Your task to perform on an android device: Add "dell xps" to the cart on costco.com, then select checkout. Image 0: 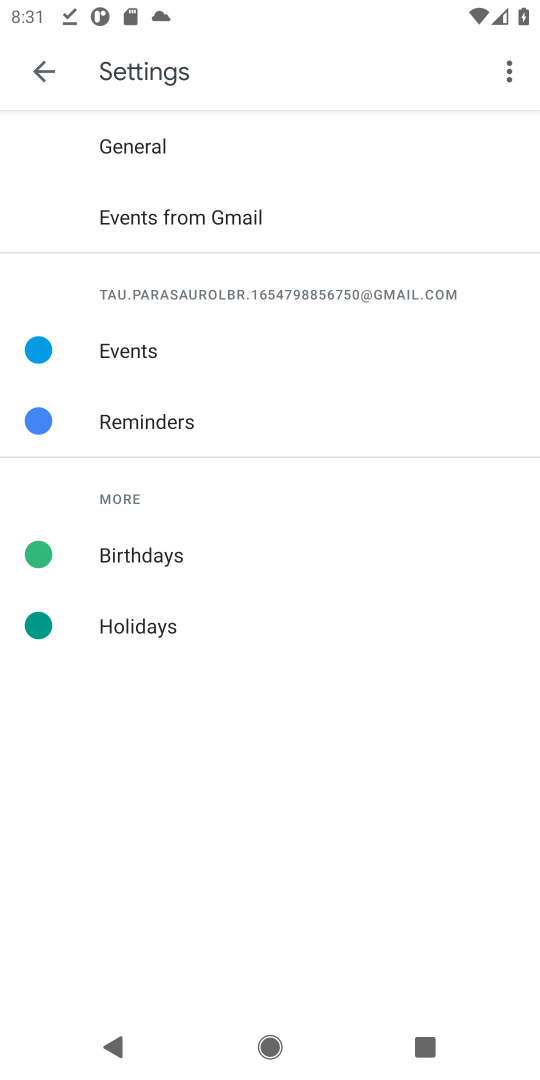
Step 0: press home button
Your task to perform on an android device: Add "dell xps" to the cart on costco.com, then select checkout. Image 1: 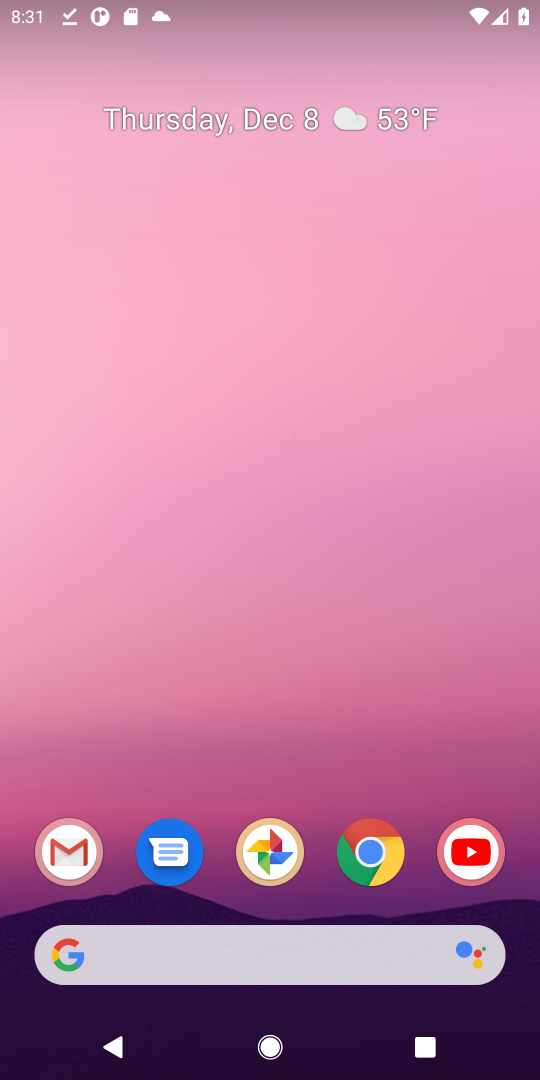
Step 1: click (231, 979)
Your task to perform on an android device: Add "dell xps" to the cart on costco.com, then select checkout. Image 2: 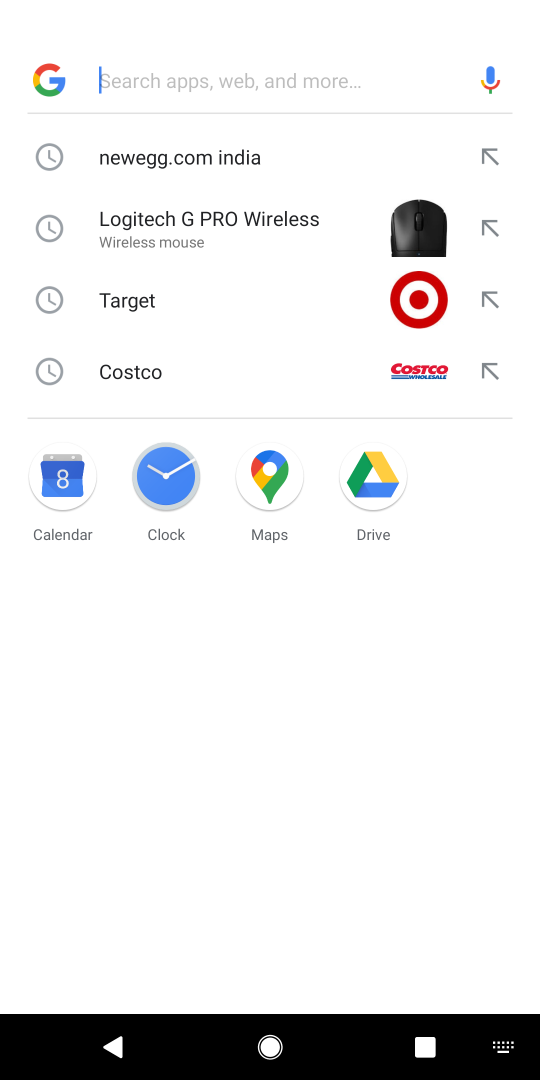
Step 2: type "costco.com"
Your task to perform on an android device: Add "dell xps" to the cart on costco.com, then select checkout. Image 3: 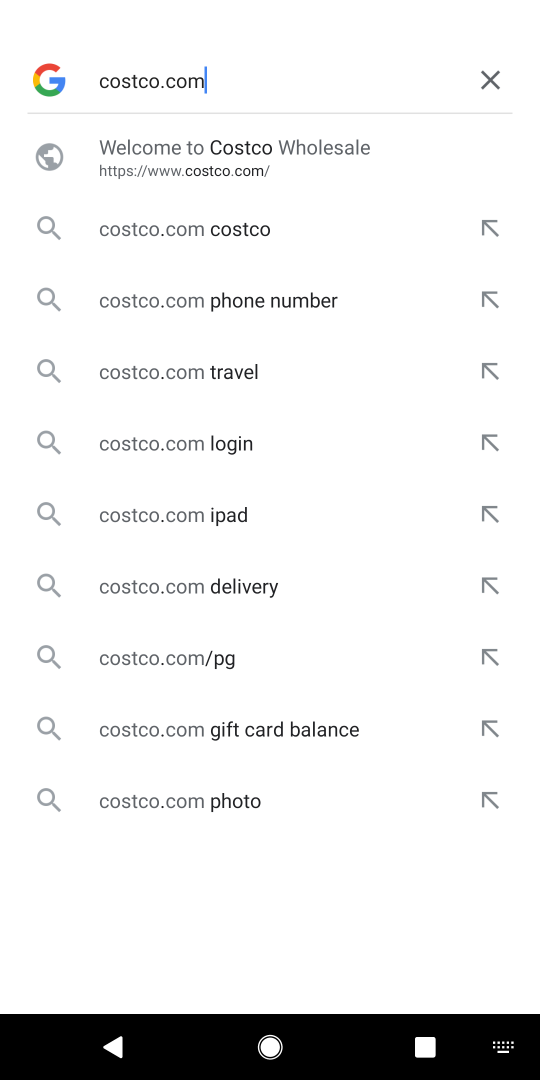
Step 3: click (147, 184)
Your task to perform on an android device: Add "dell xps" to the cart on costco.com, then select checkout. Image 4: 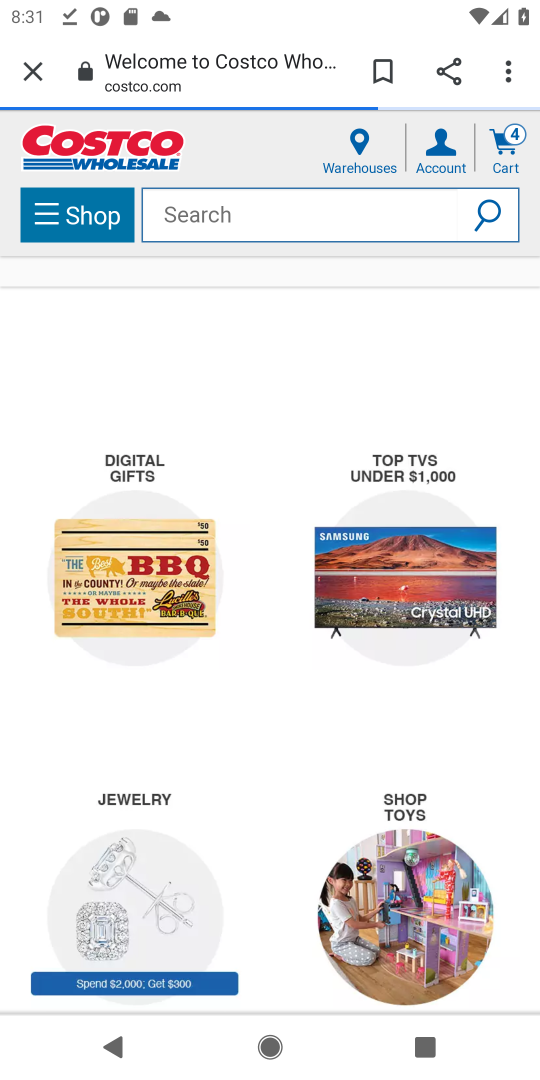
Step 4: click (307, 224)
Your task to perform on an android device: Add "dell xps" to the cart on costco.com, then select checkout. Image 5: 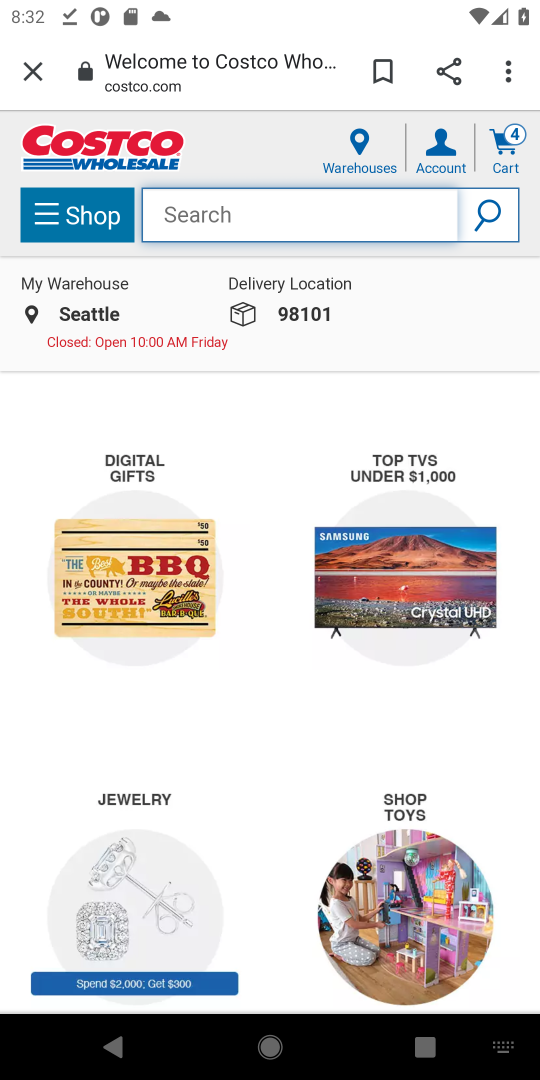
Step 5: type "dell xps"
Your task to perform on an android device: Add "dell xps" to the cart on costco.com, then select checkout. Image 6: 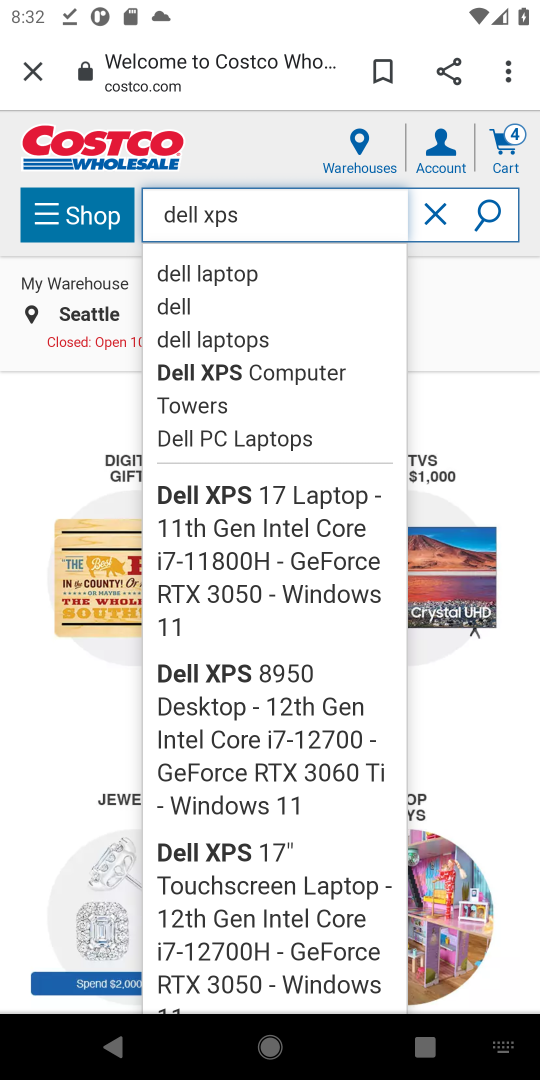
Step 6: click (481, 214)
Your task to perform on an android device: Add "dell xps" to the cart on costco.com, then select checkout. Image 7: 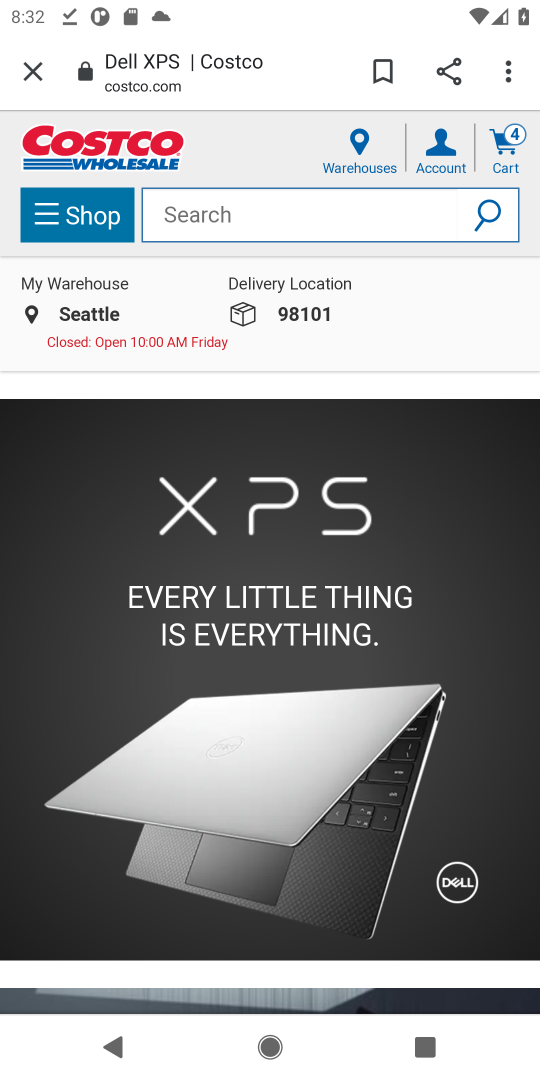
Step 7: task complete